Your task to perform on an android device: allow cookies in the chrome app Image 0: 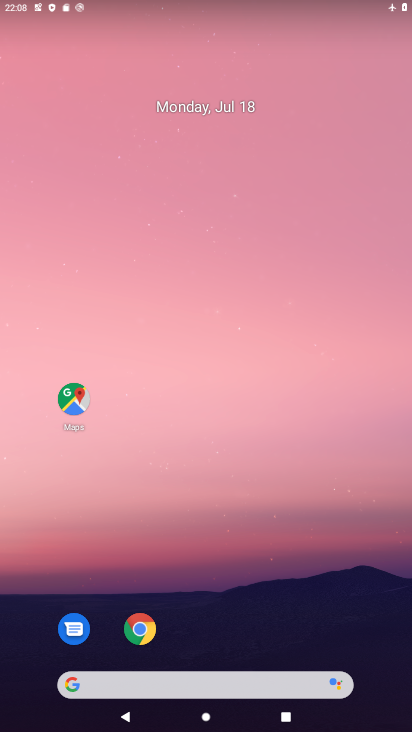
Step 0: drag from (242, 551) to (257, 61)
Your task to perform on an android device: allow cookies in the chrome app Image 1: 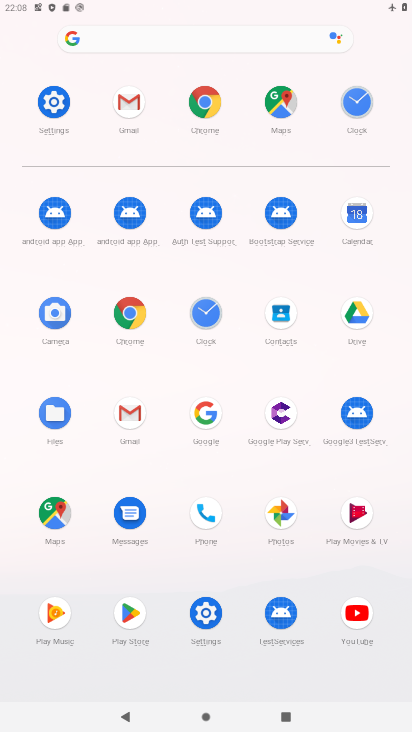
Step 1: click (210, 99)
Your task to perform on an android device: allow cookies in the chrome app Image 2: 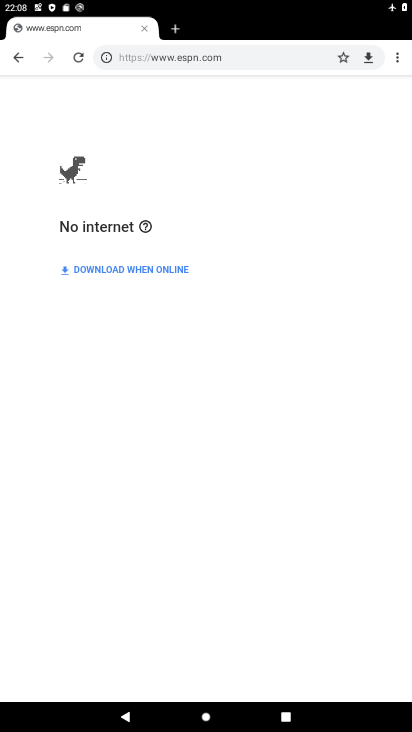
Step 2: drag from (395, 55) to (270, 389)
Your task to perform on an android device: allow cookies in the chrome app Image 3: 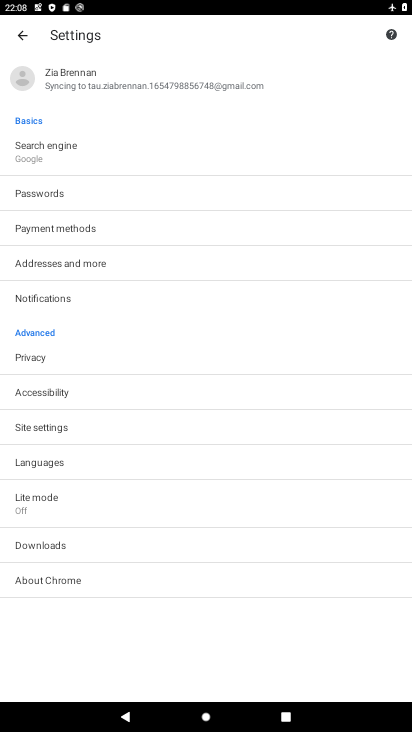
Step 3: click (51, 424)
Your task to perform on an android device: allow cookies in the chrome app Image 4: 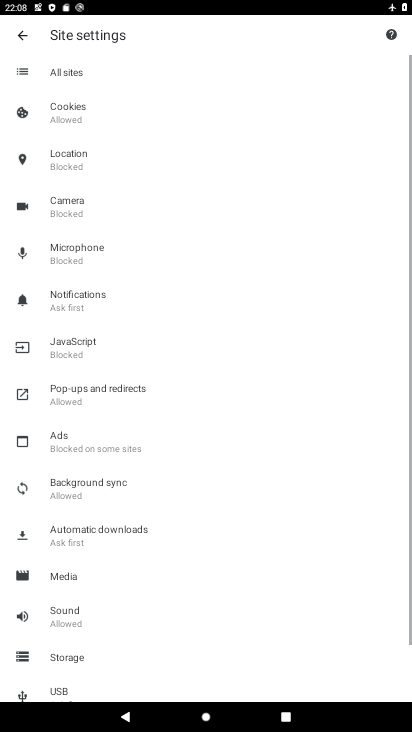
Step 4: click (76, 117)
Your task to perform on an android device: allow cookies in the chrome app Image 5: 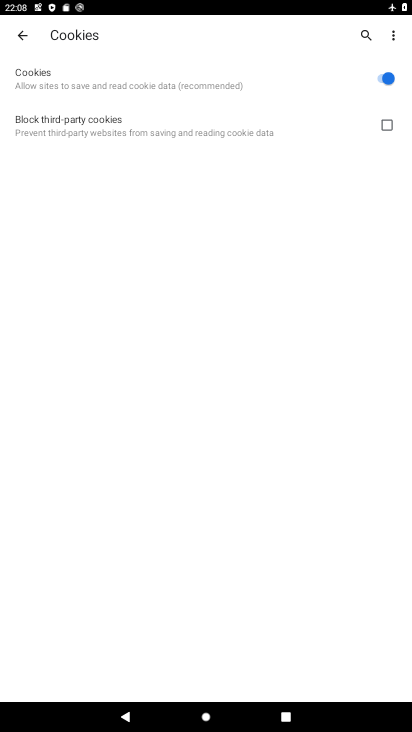
Step 5: task complete